Your task to perform on an android device: How much does a 3 bedroom apartment rent for in Los Angeles? Image 0: 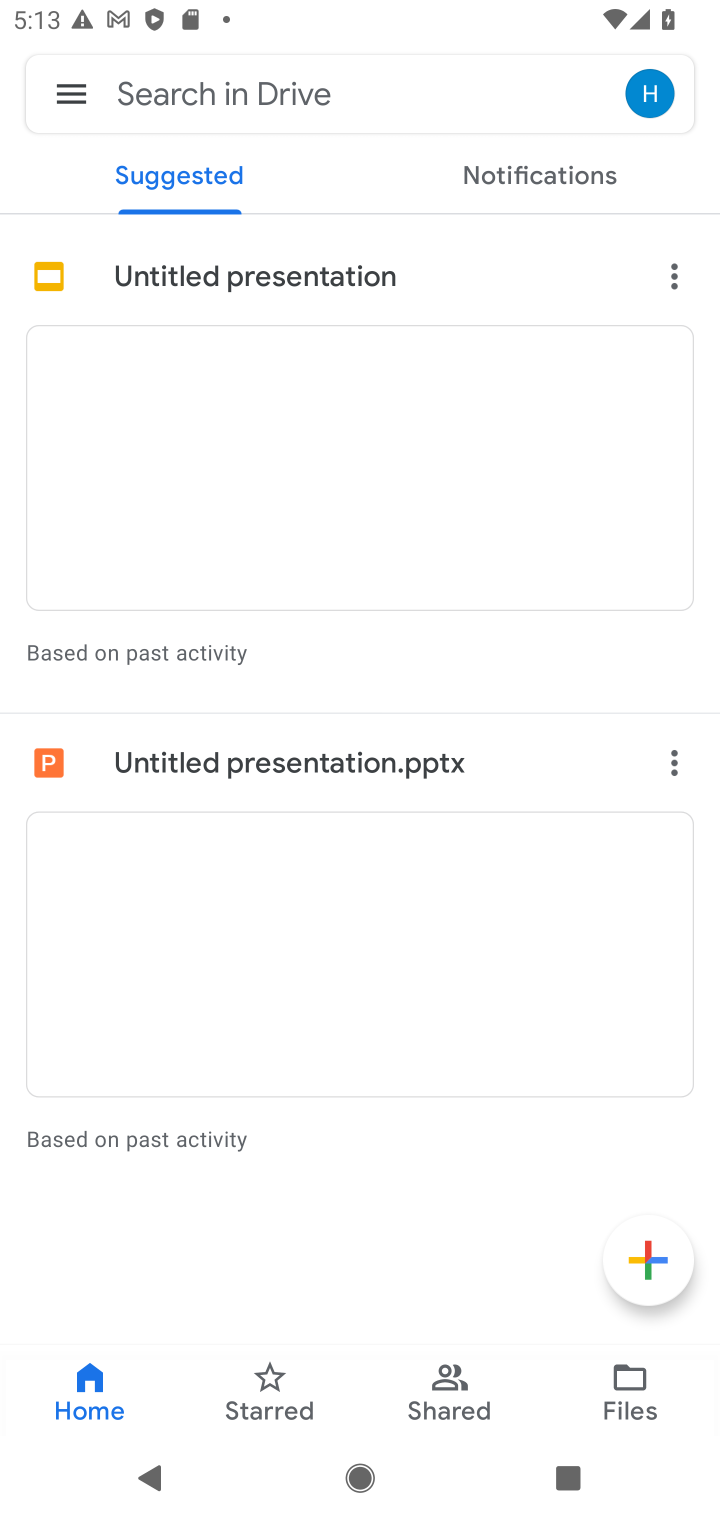
Step 0: press home button
Your task to perform on an android device: How much does a 3 bedroom apartment rent for in Los Angeles? Image 1: 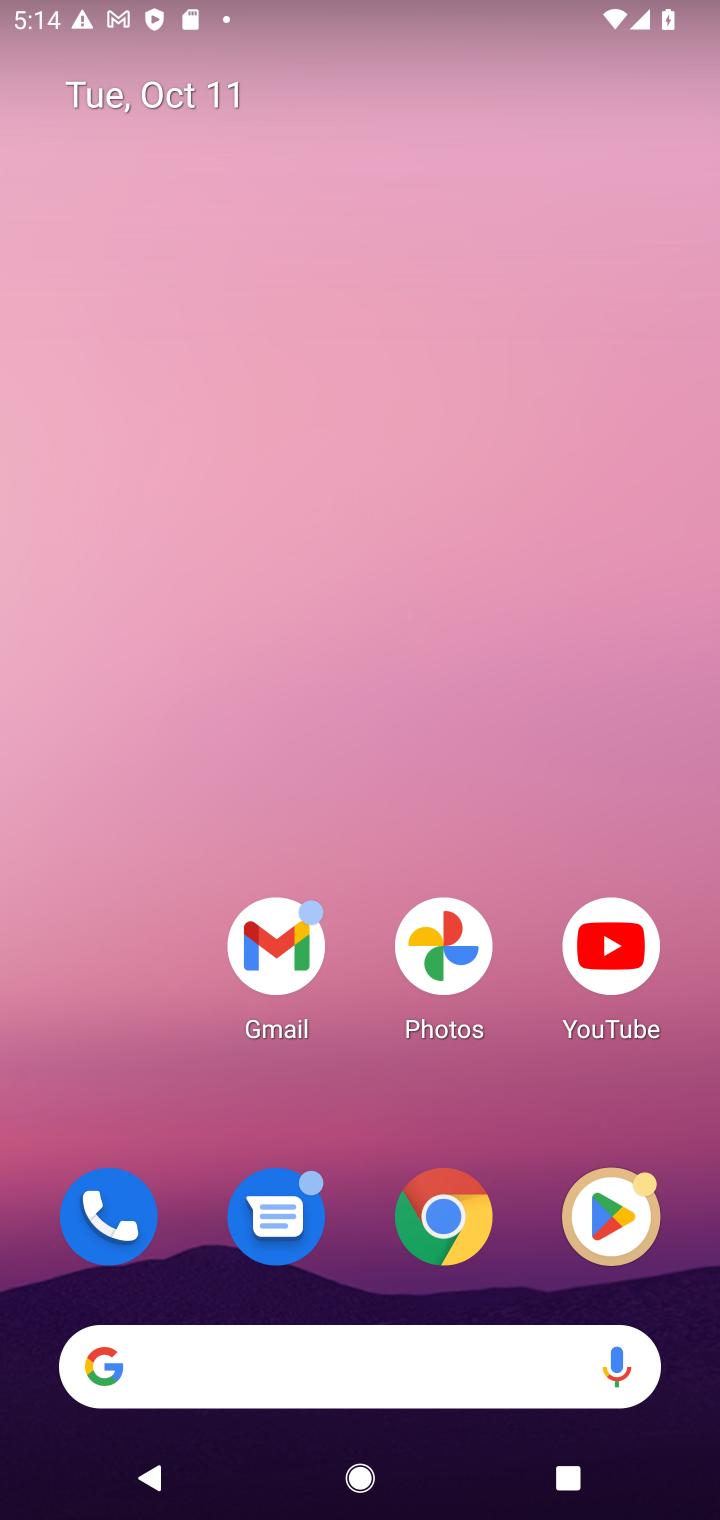
Step 1: click (440, 1226)
Your task to perform on an android device: How much does a 3 bedroom apartment rent for in Los Angeles? Image 2: 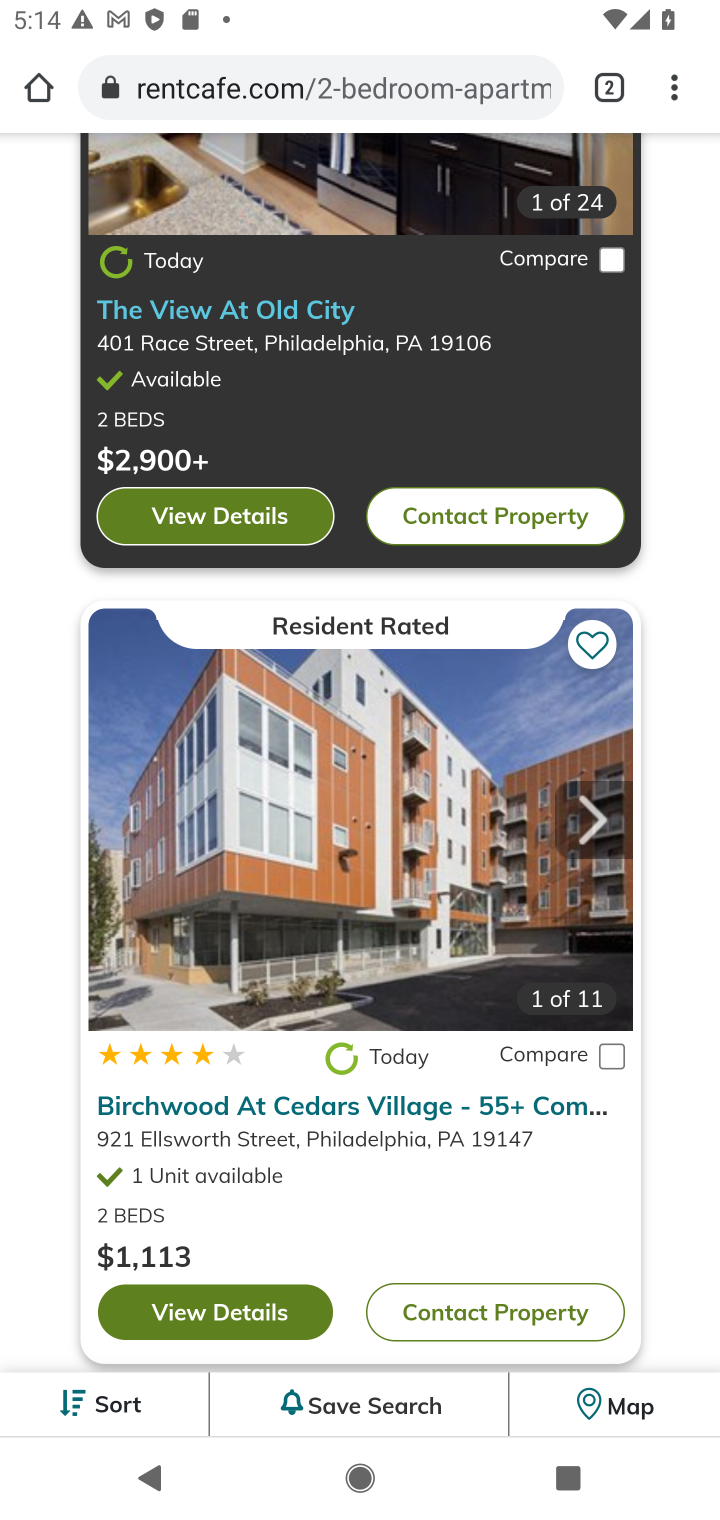
Step 2: click (353, 79)
Your task to perform on an android device: How much does a 3 bedroom apartment rent for in Los Angeles? Image 3: 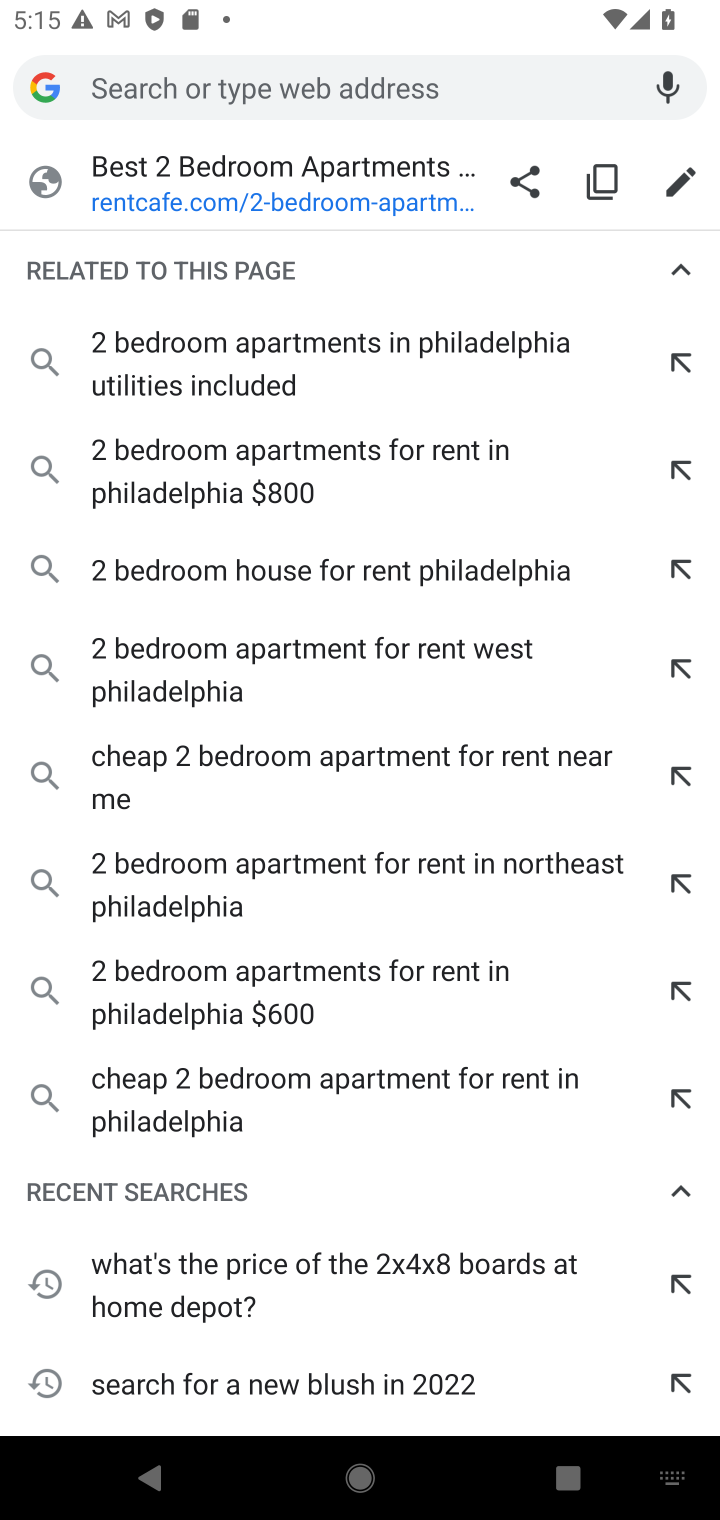
Step 3: type "How much does a 3 bedroom apartment rent for in Los Aneles?"
Your task to perform on an android device: How much does a 3 bedroom apartment rent for in Los Angeles? Image 4: 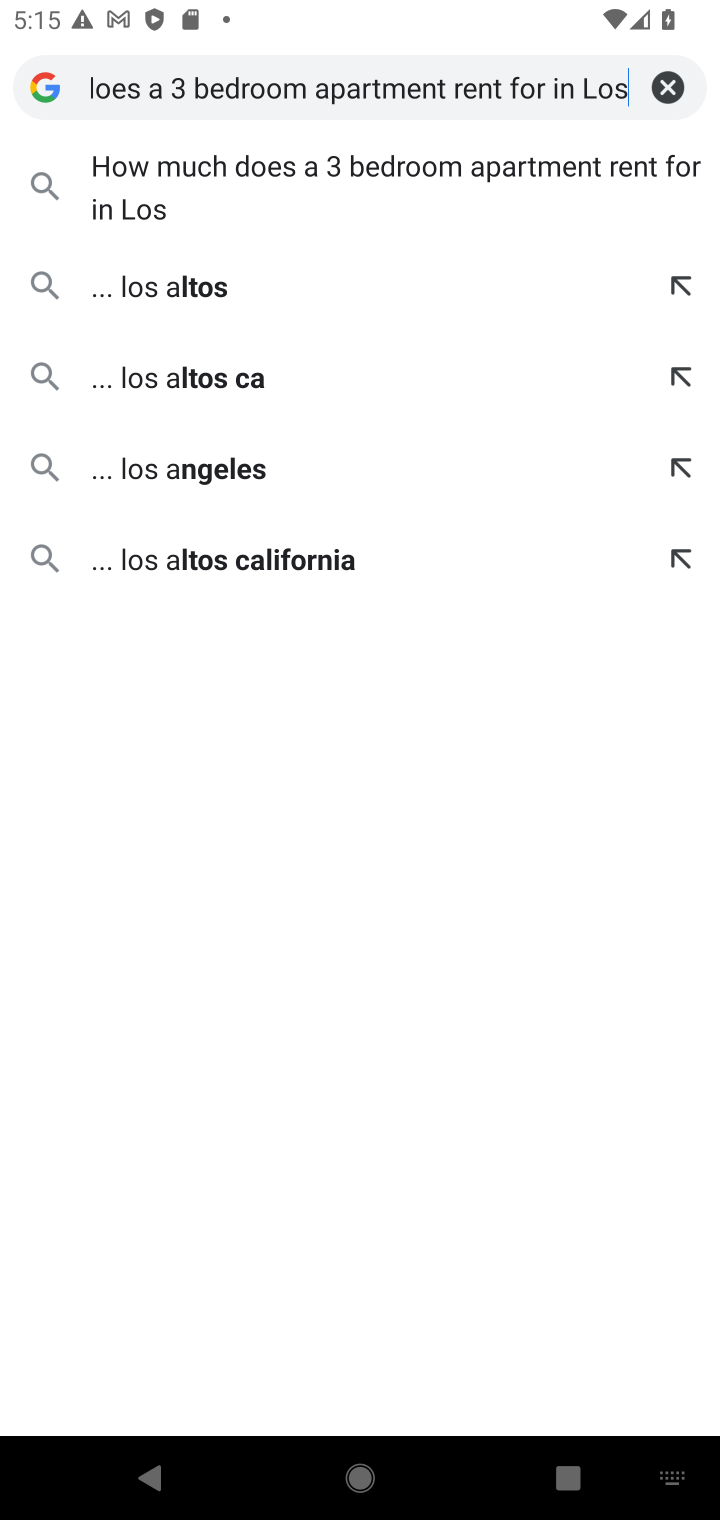
Step 4: type " Angeles?"
Your task to perform on an android device: How much does a 3 bedroom apartment rent for in Los Angeles? Image 5: 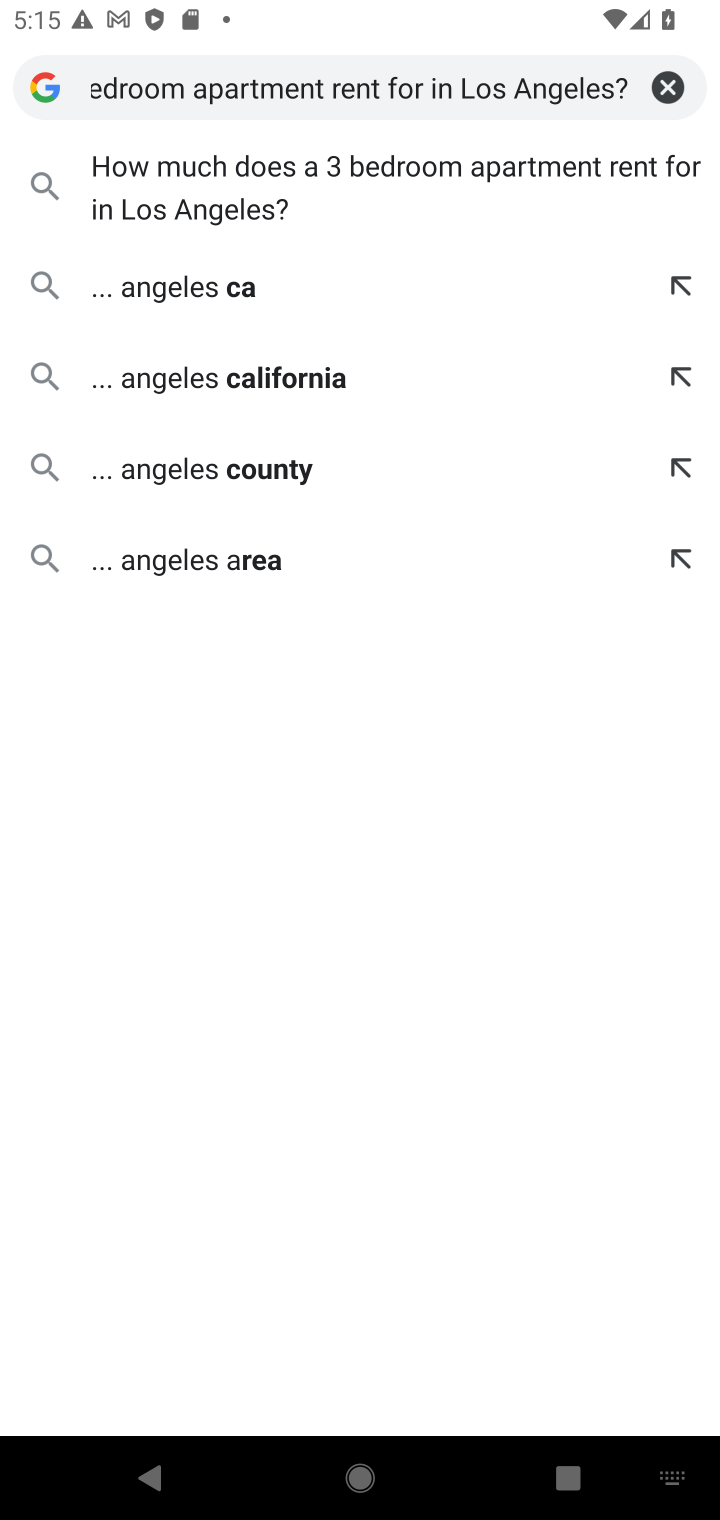
Step 5: click (284, 175)
Your task to perform on an android device: How much does a 3 bedroom apartment rent for in Los Angeles? Image 6: 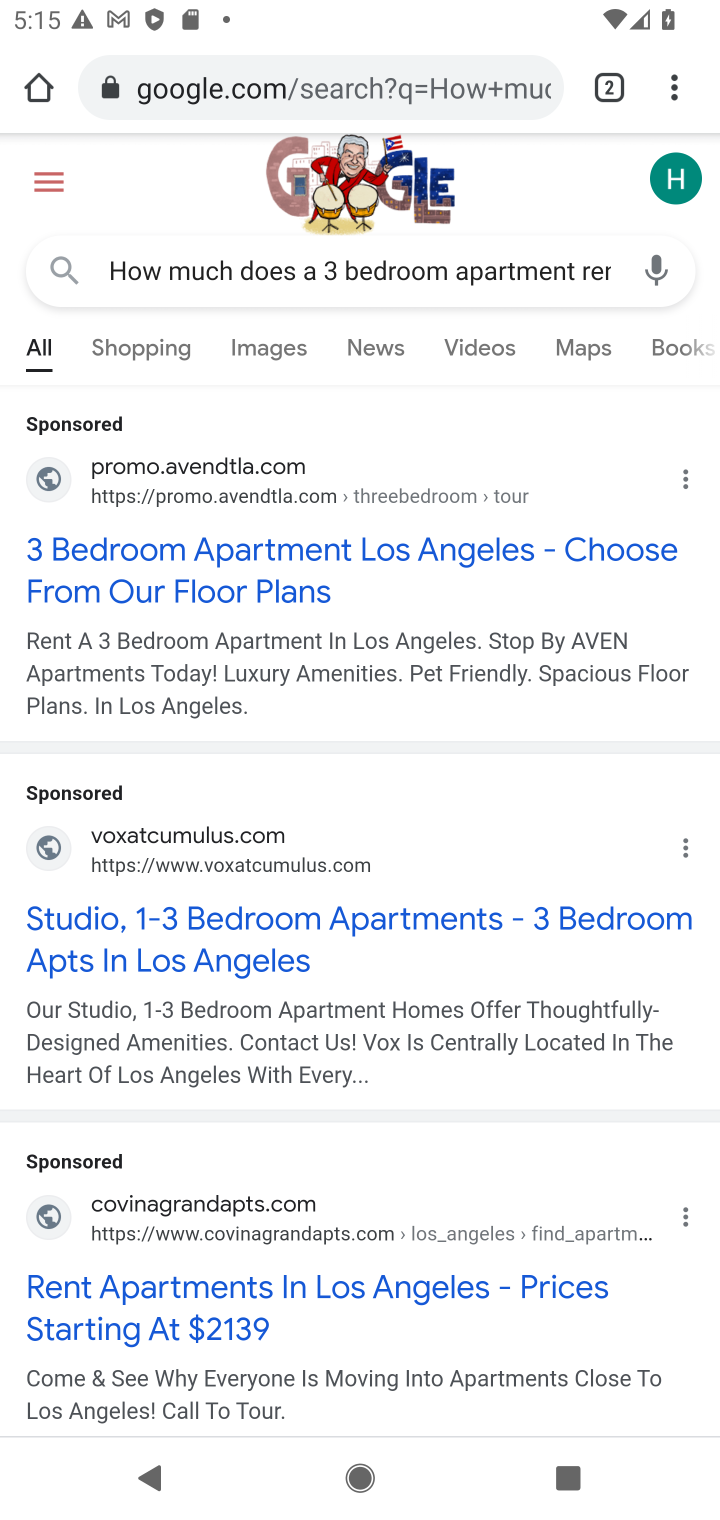
Step 6: drag from (353, 1200) to (374, 830)
Your task to perform on an android device: How much does a 3 bedroom apartment rent for in Los Angeles? Image 7: 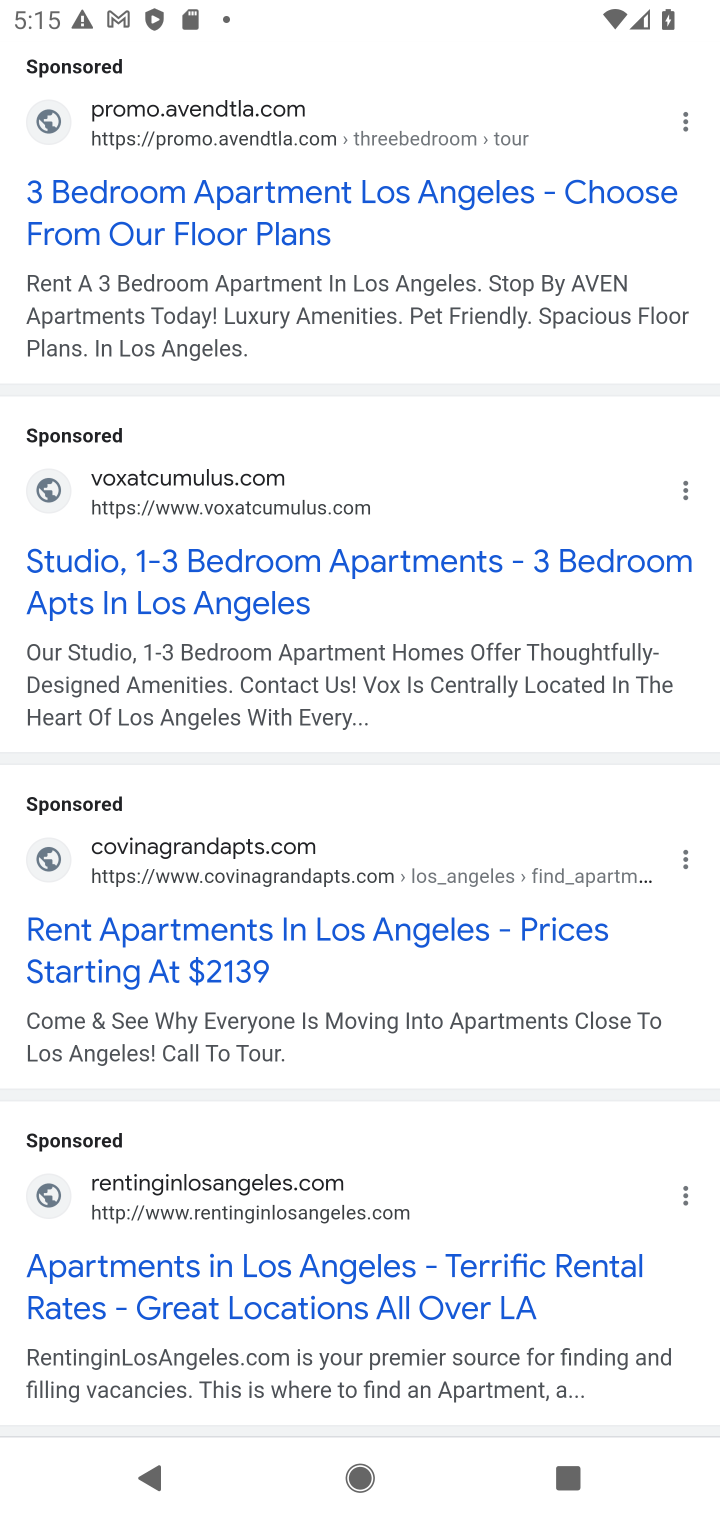
Step 7: drag from (296, 1265) to (385, 871)
Your task to perform on an android device: How much does a 3 bedroom apartment rent for in Los Angeles? Image 8: 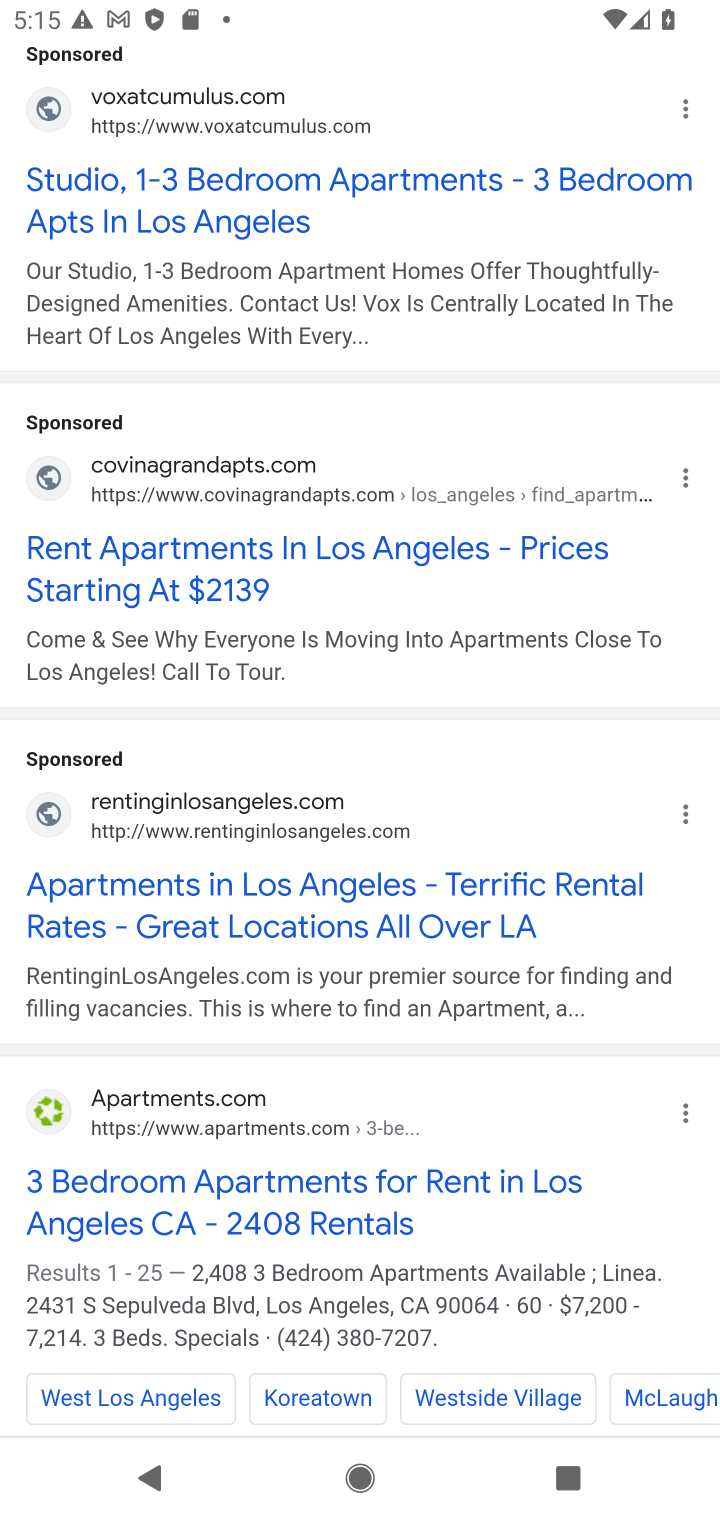
Step 8: drag from (299, 1147) to (351, 749)
Your task to perform on an android device: How much does a 3 bedroom apartment rent for in Los Angeles? Image 9: 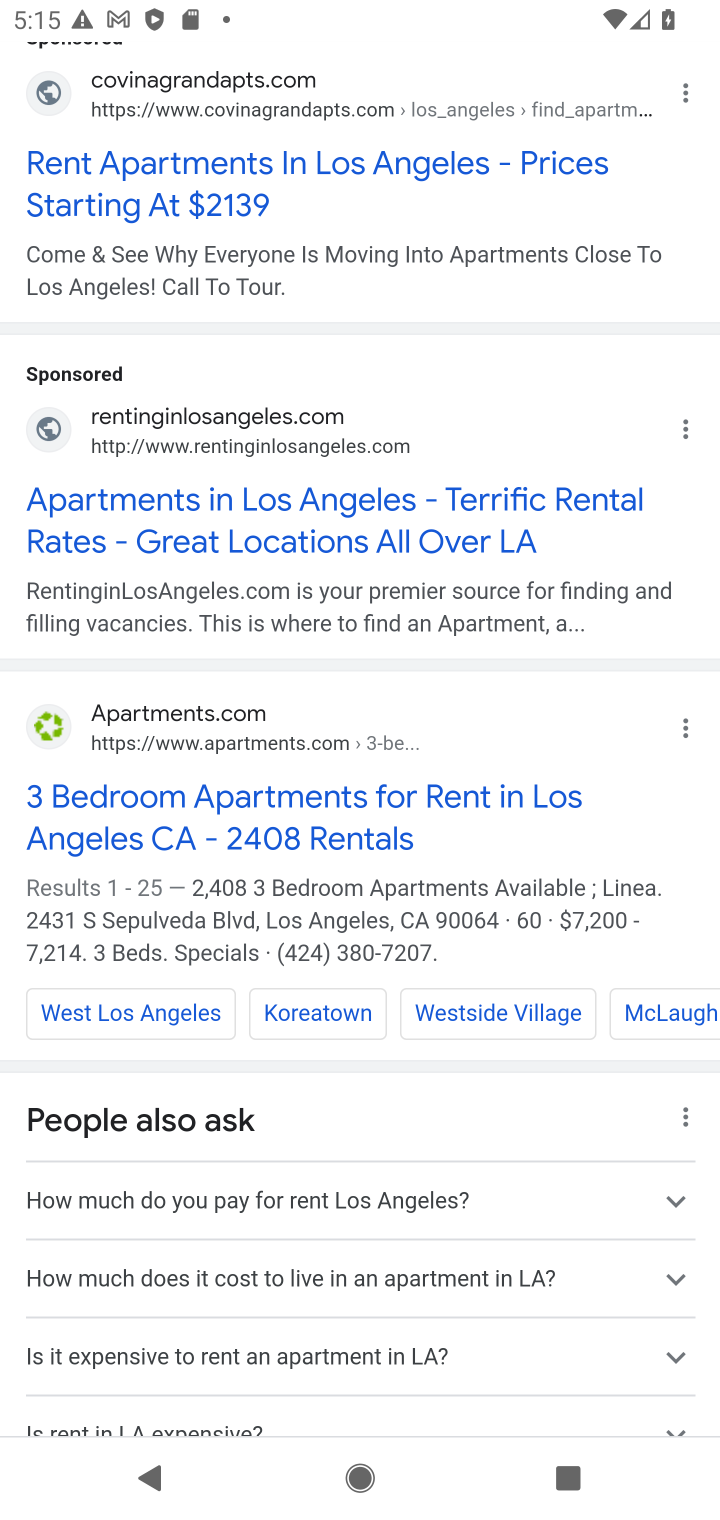
Step 9: drag from (329, 1303) to (442, 867)
Your task to perform on an android device: How much does a 3 bedroom apartment rent for in Los Angeles? Image 10: 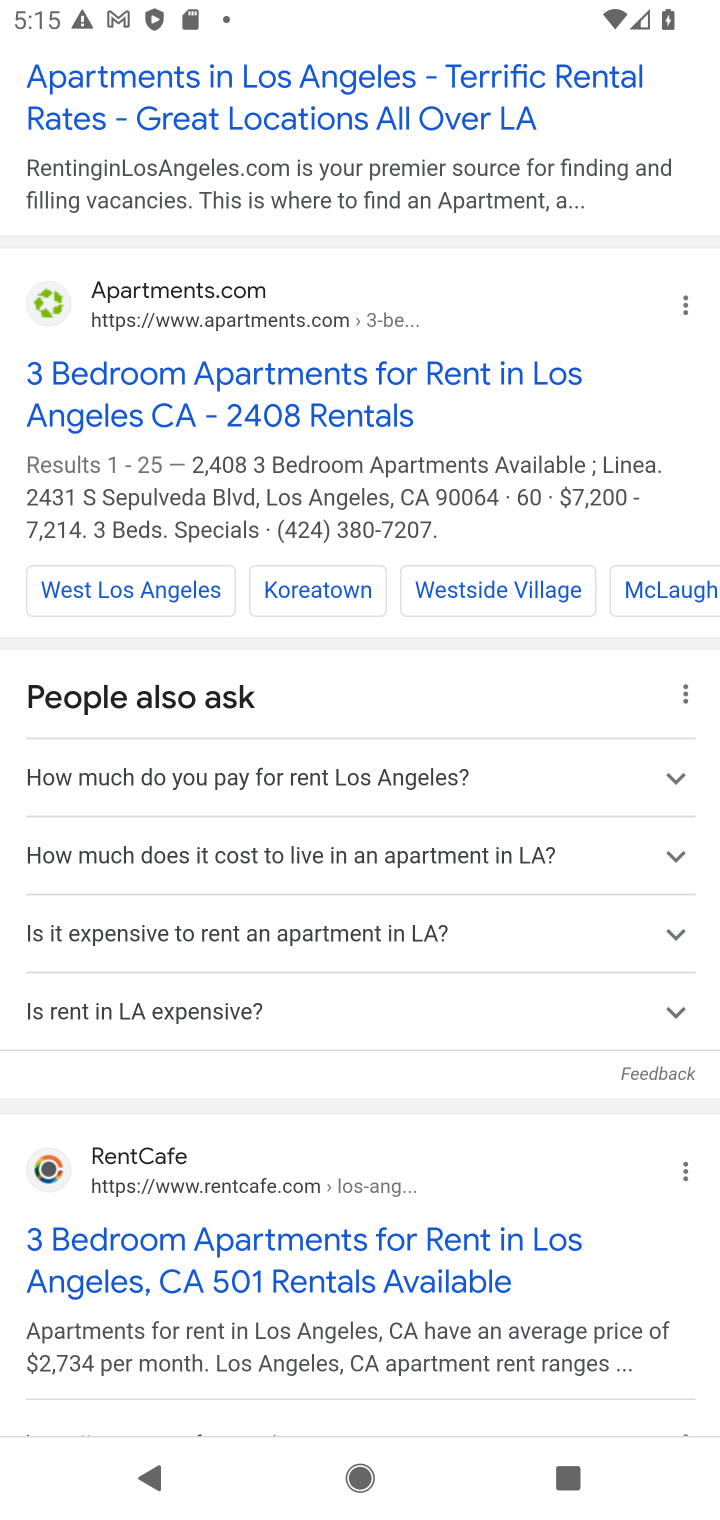
Step 10: click (190, 1180)
Your task to perform on an android device: How much does a 3 bedroom apartment rent for in Los Angeles? Image 11: 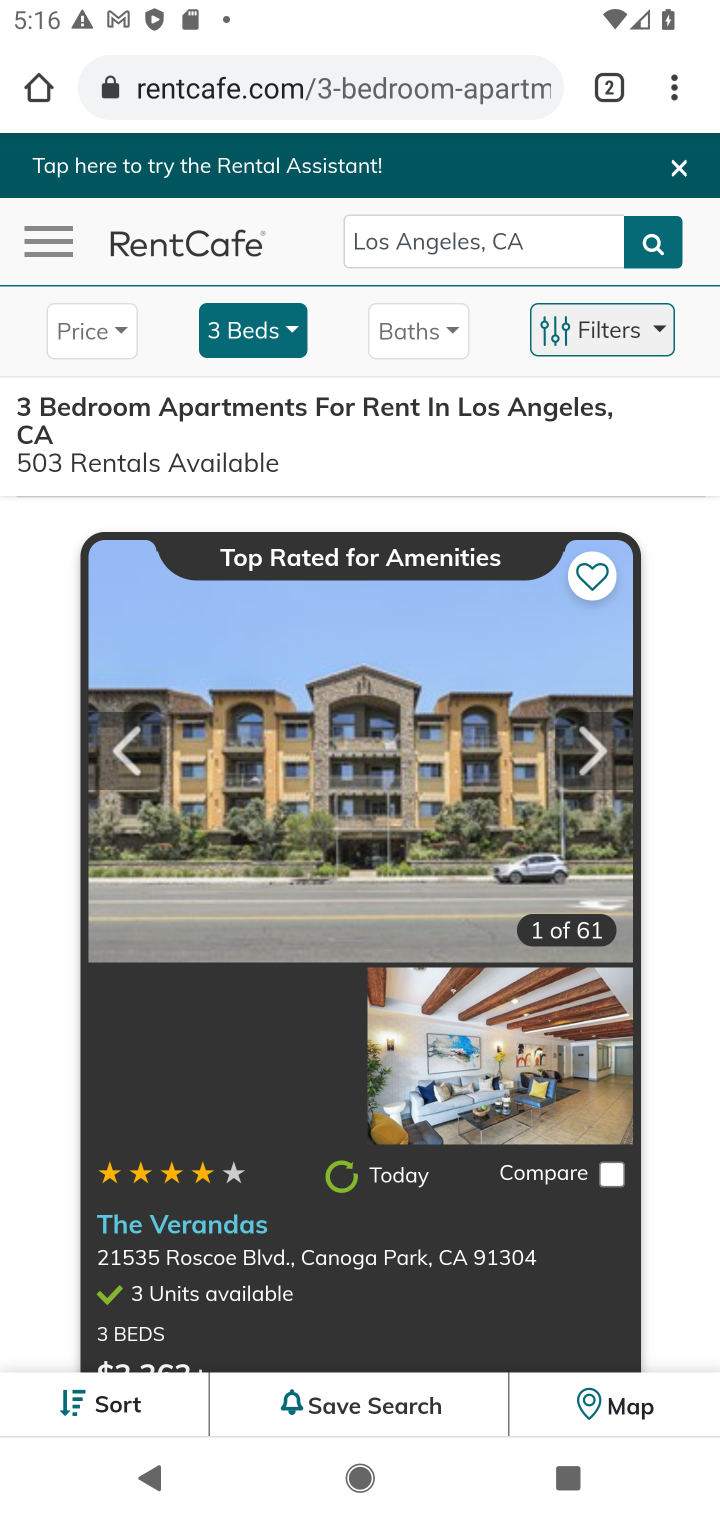
Step 11: task complete